Your task to perform on an android device: check data usage Image 0: 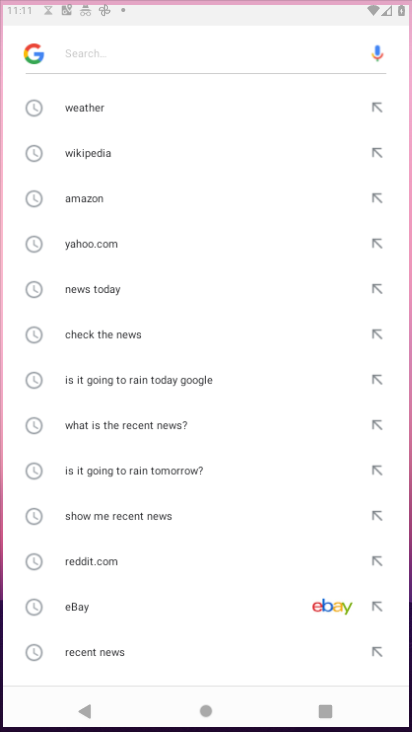
Step 0: drag from (263, 641) to (162, 260)
Your task to perform on an android device: check data usage Image 1: 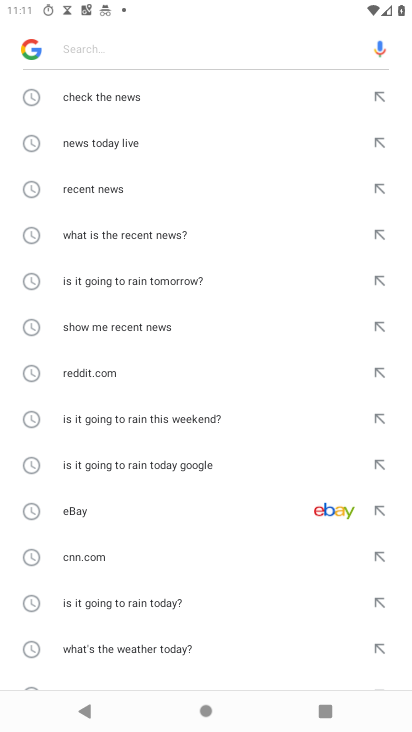
Step 1: press back button
Your task to perform on an android device: check data usage Image 2: 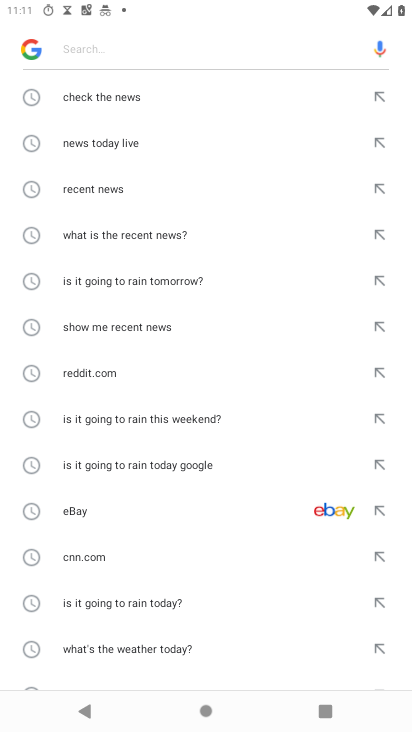
Step 2: press back button
Your task to perform on an android device: check data usage Image 3: 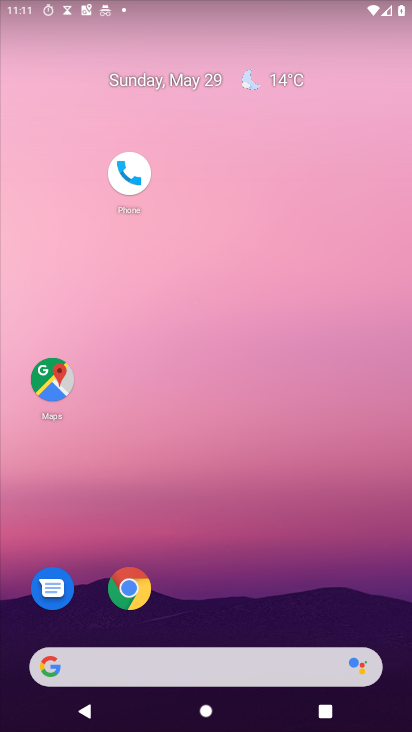
Step 3: drag from (267, 707) to (169, 113)
Your task to perform on an android device: check data usage Image 4: 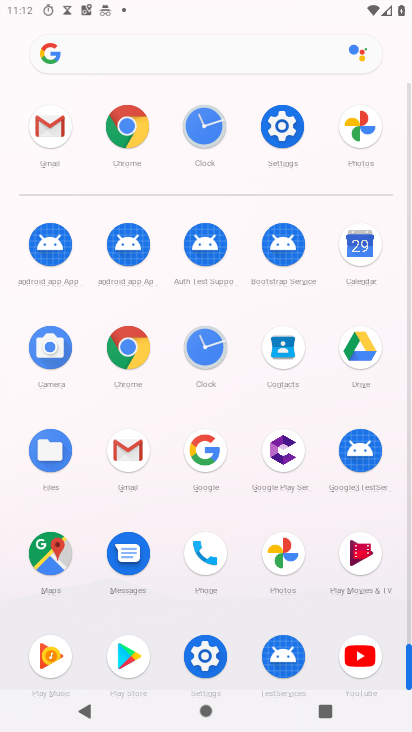
Step 4: click (283, 139)
Your task to perform on an android device: check data usage Image 5: 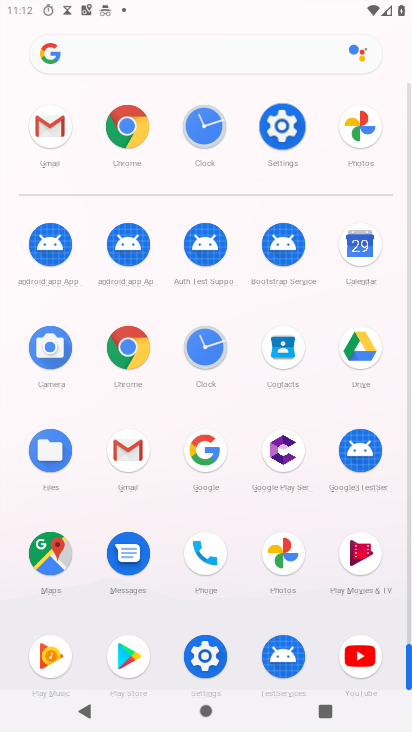
Step 5: click (283, 139)
Your task to perform on an android device: check data usage Image 6: 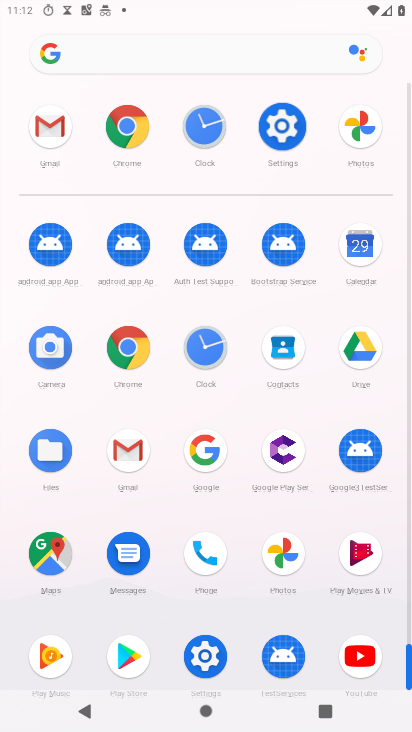
Step 6: click (283, 139)
Your task to perform on an android device: check data usage Image 7: 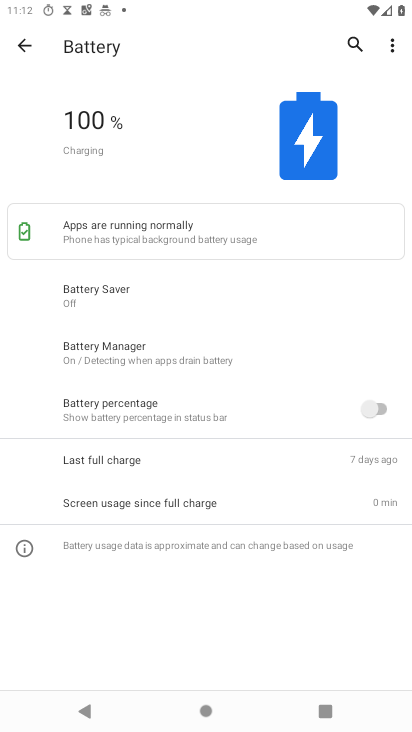
Step 7: click (17, 45)
Your task to perform on an android device: check data usage Image 8: 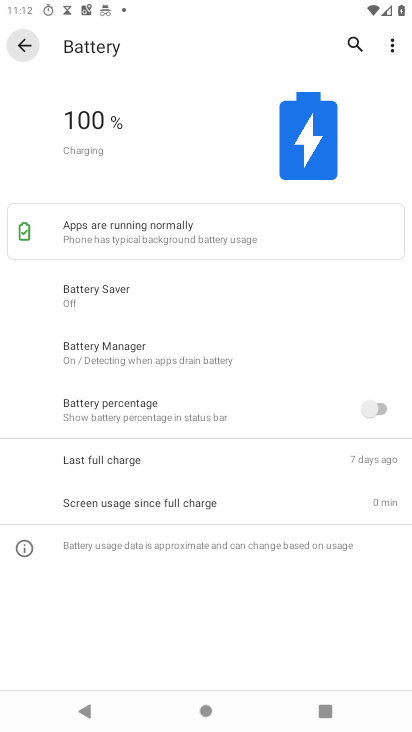
Step 8: click (17, 45)
Your task to perform on an android device: check data usage Image 9: 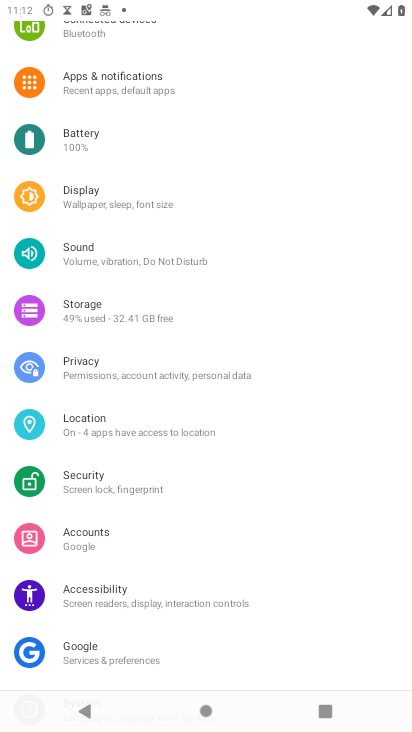
Step 9: click (104, 463)
Your task to perform on an android device: check data usage Image 10: 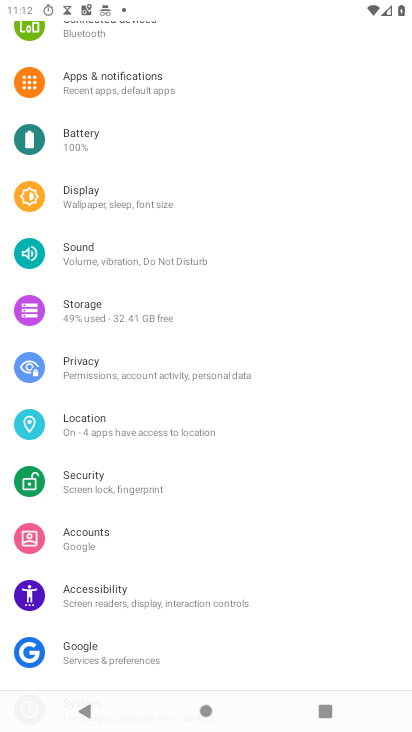
Step 10: drag from (115, 174) to (105, 631)
Your task to perform on an android device: check data usage Image 11: 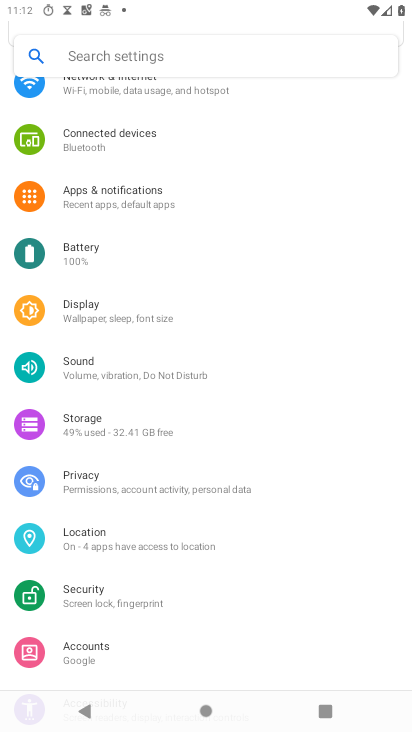
Step 11: drag from (91, 294) to (95, 438)
Your task to perform on an android device: check data usage Image 12: 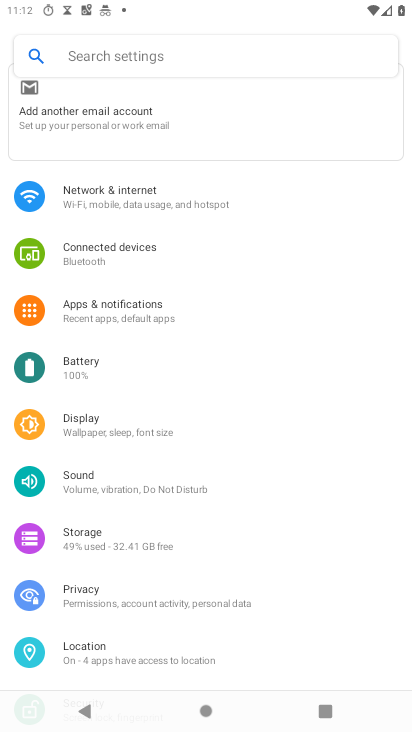
Step 12: click (128, 192)
Your task to perform on an android device: check data usage Image 13: 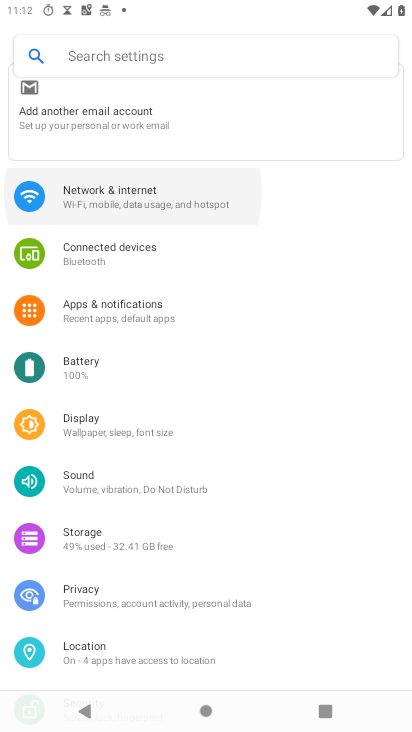
Step 13: click (127, 193)
Your task to perform on an android device: check data usage Image 14: 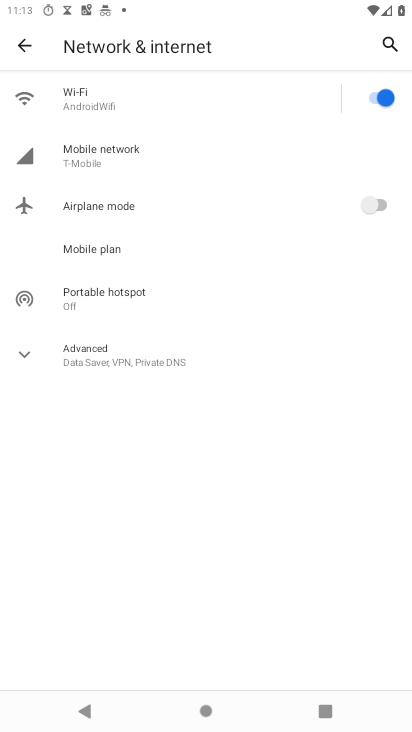
Step 14: task complete